Your task to perform on an android device: Set the phone to "Do not disturb". Image 0: 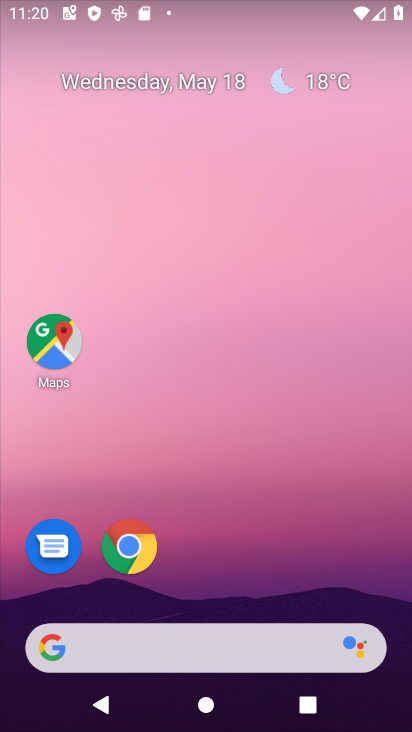
Step 0: drag from (193, 727) to (190, 252)
Your task to perform on an android device: Set the phone to "Do not disturb". Image 1: 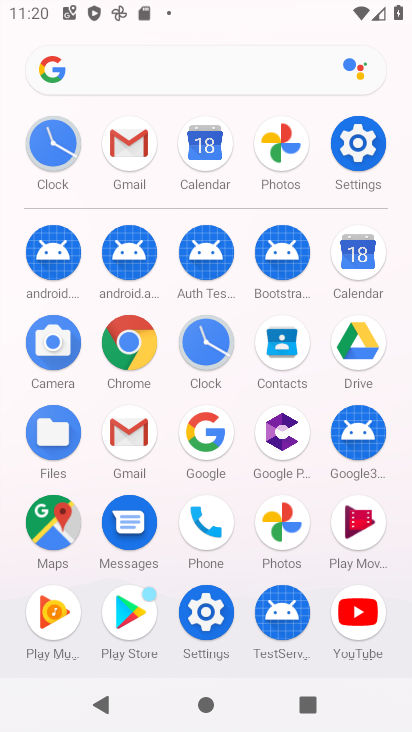
Step 1: click (360, 150)
Your task to perform on an android device: Set the phone to "Do not disturb". Image 2: 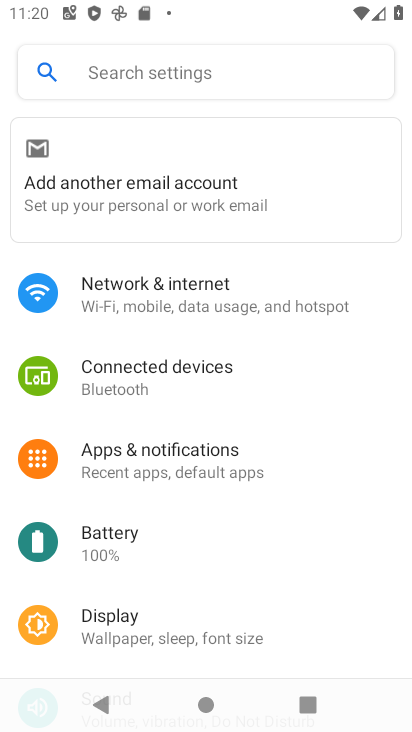
Step 2: drag from (238, 616) to (242, 278)
Your task to perform on an android device: Set the phone to "Do not disturb". Image 3: 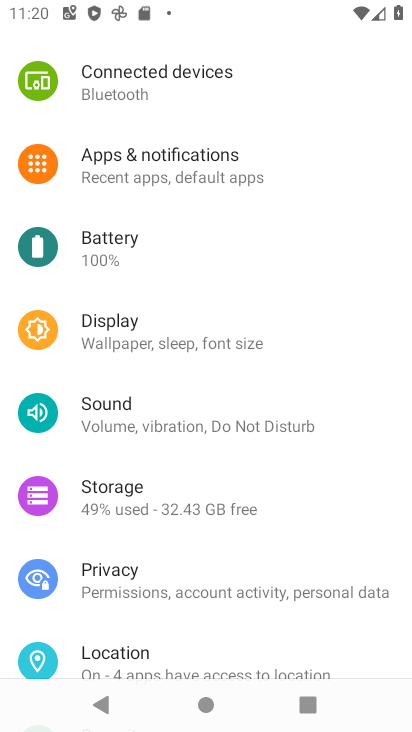
Step 3: click (197, 426)
Your task to perform on an android device: Set the phone to "Do not disturb". Image 4: 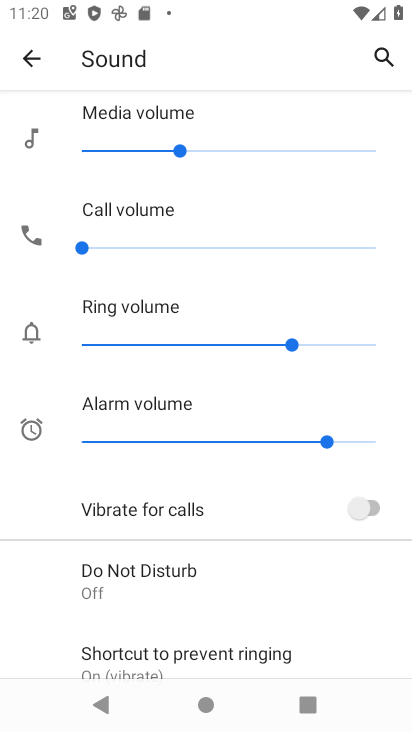
Step 4: click (163, 571)
Your task to perform on an android device: Set the phone to "Do not disturb". Image 5: 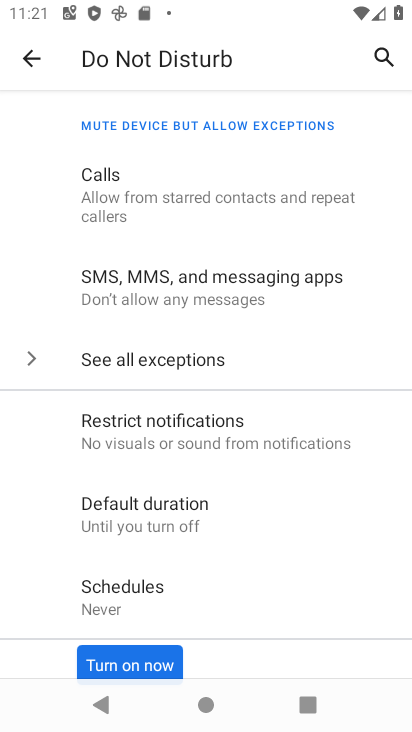
Step 5: click (126, 654)
Your task to perform on an android device: Set the phone to "Do not disturb". Image 6: 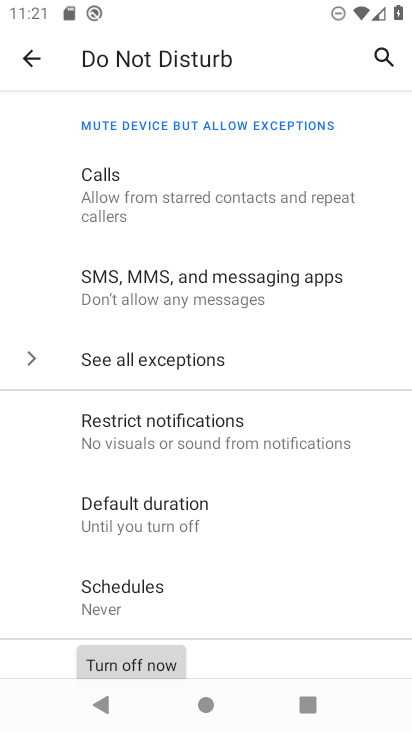
Step 6: task complete